Your task to perform on an android device: open a bookmark in the chrome app Image 0: 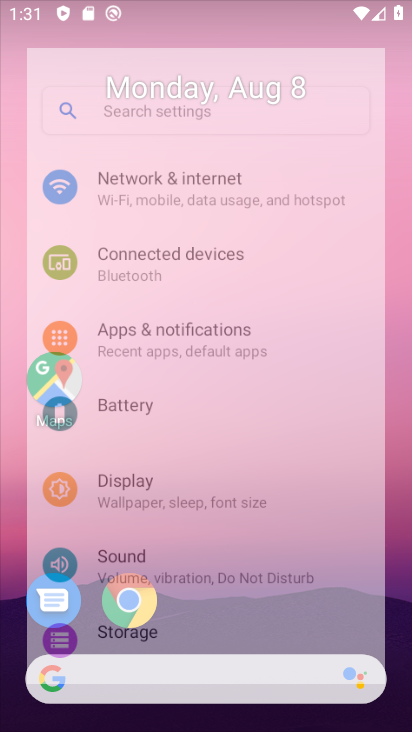
Step 0: press home button
Your task to perform on an android device: open a bookmark in the chrome app Image 1: 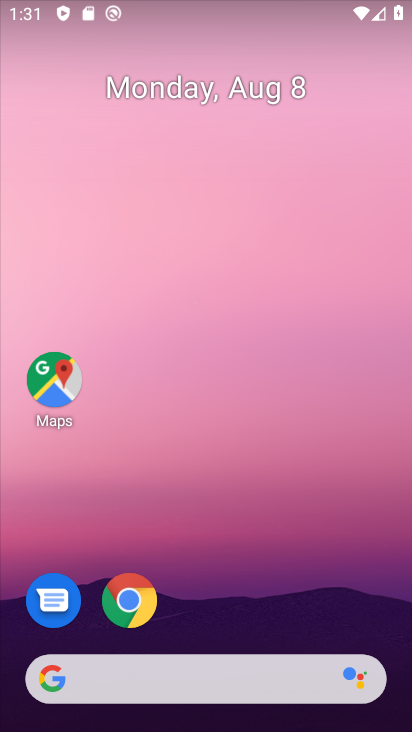
Step 1: drag from (240, 560) to (203, 98)
Your task to perform on an android device: open a bookmark in the chrome app Image 2: 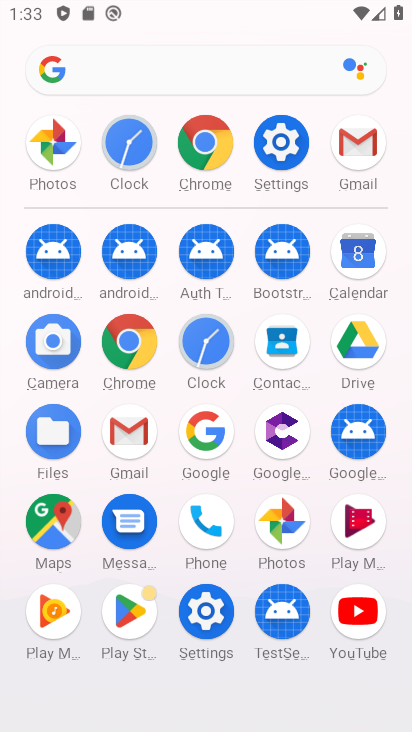
Step 2: click (207, 175)
Your task to perform on an android device: open a bookmark in the chrome app Image 3: 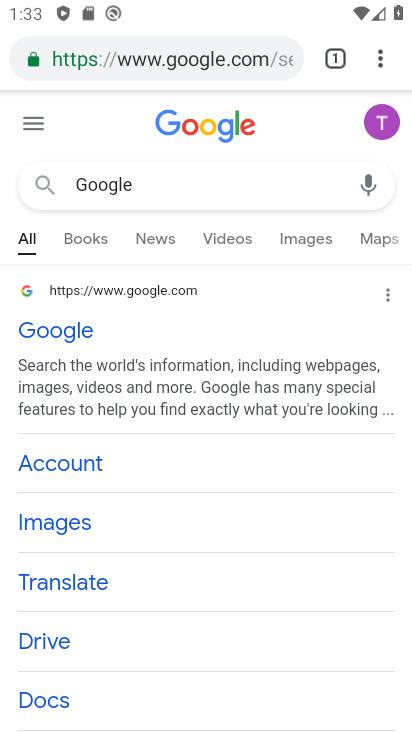
Step 3: task complete